Your task to perform on an android device: Search for Mexican restaurants on Maps Image 0: 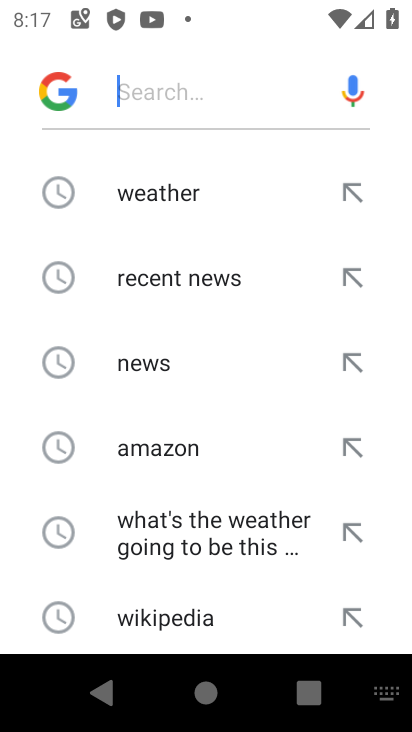
Step 0: press home button
Your task to perform on an android device: Search for Mexican restaurants on Maps Image 1: 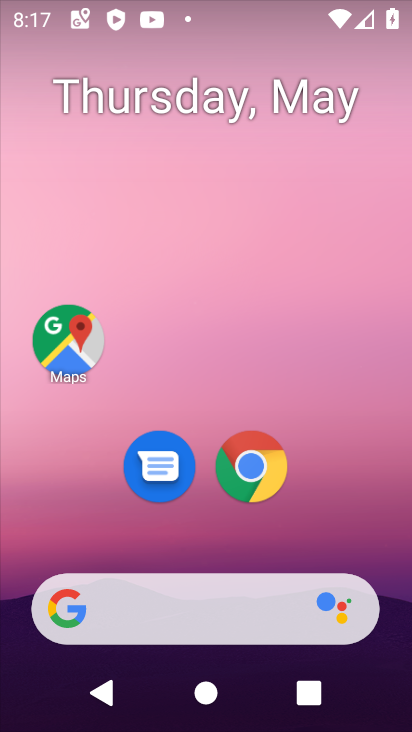
Step 1: click (60, 347)
Your task to perform on an android device: Search for Mexican restaurants on Maps Image 2: 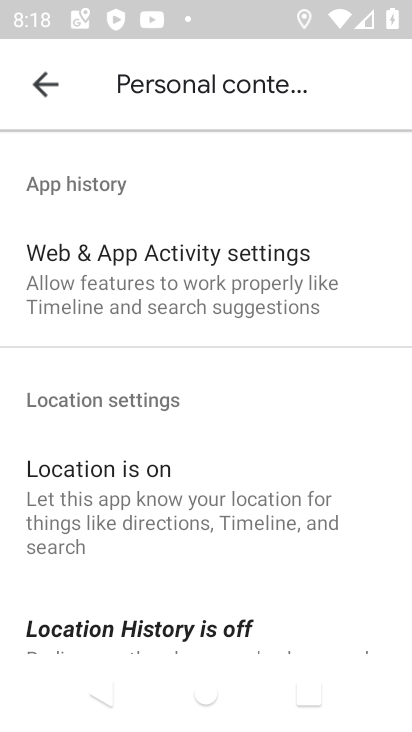
Step 2: click (39, 94)
Your task to perform on an android device: Search for Mexican restaurants on Maps Image 3: 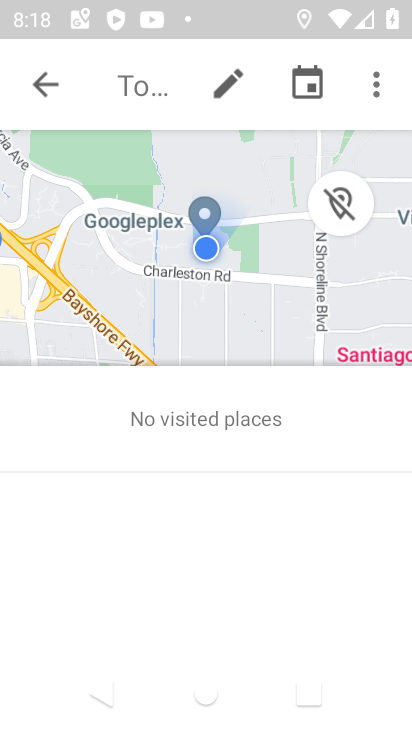
Step 3: click (39, 93)
Your task to perform on an android device: Search for Mexican restaurants on Maps Image 4: 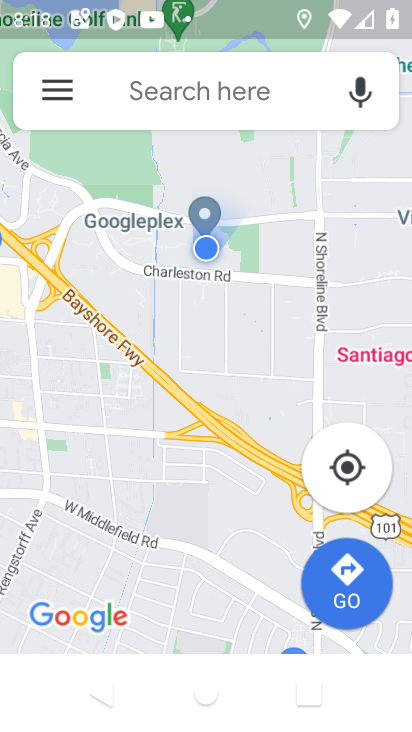
Step 4: click (136, 88)
Your task to perform on an android device: Search for Mexican restaurants on Maps Image 5: 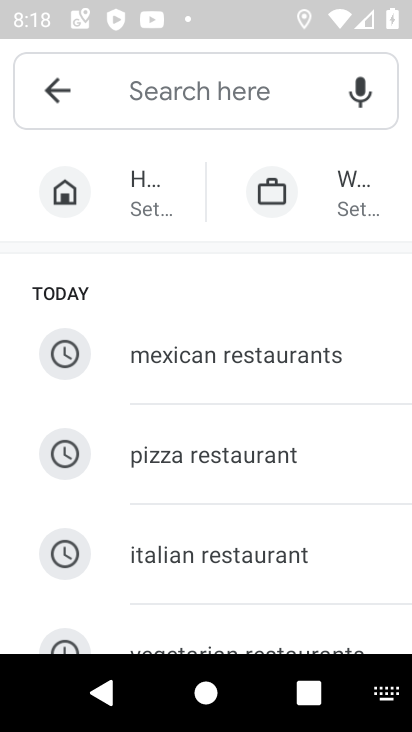
Step 5: type "mexican restaurants"
Your task to perform on an android device: Search for Mexican restaurants on Maps Image 6: 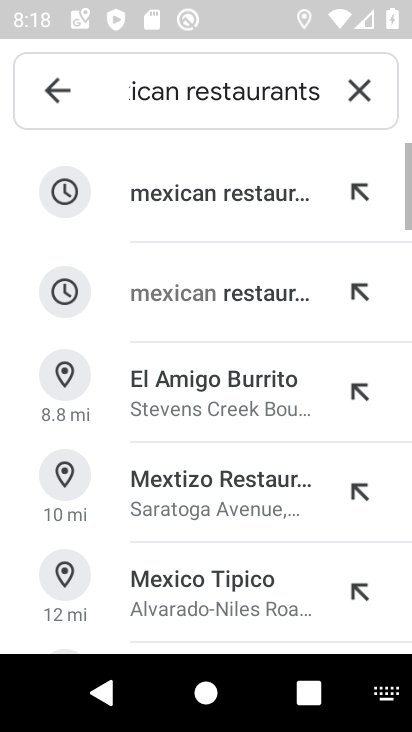
Step 6: click (265, 179)
Your task to perform on an android device: Search for Mexican restaurants on Maps Image 7: 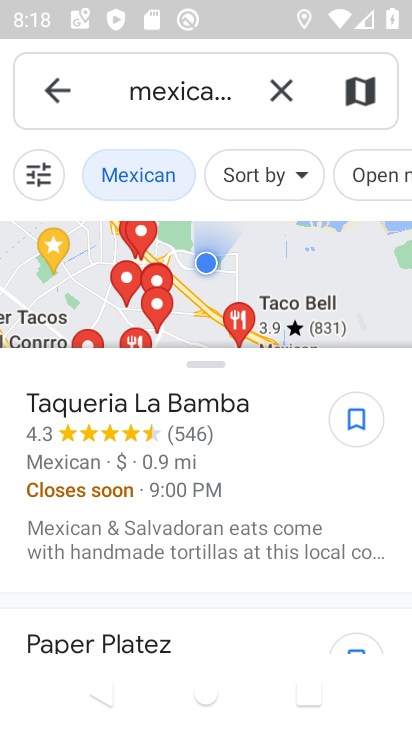
Step 7: task complete